Your task to perform on an android device: Search for seafood restaurants on Google Maps Image 0: 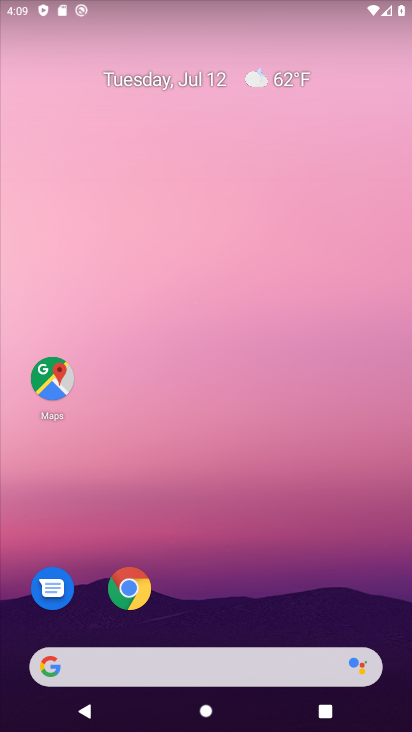
Step 0: drag from (202, 626) to (318, 65)
Your task to perform on an android device: Search for seafood restaurants on Google Maps Image 1: 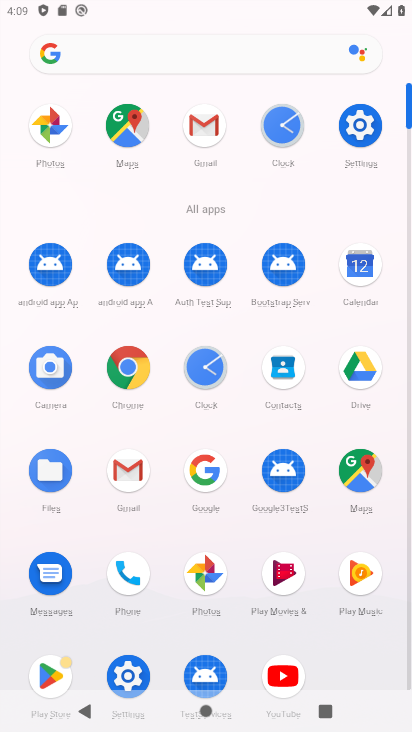
Step 1: click (337, 462)
Your task to perform on an android device: Search for seafood restaurants on Google Maps Image 2: 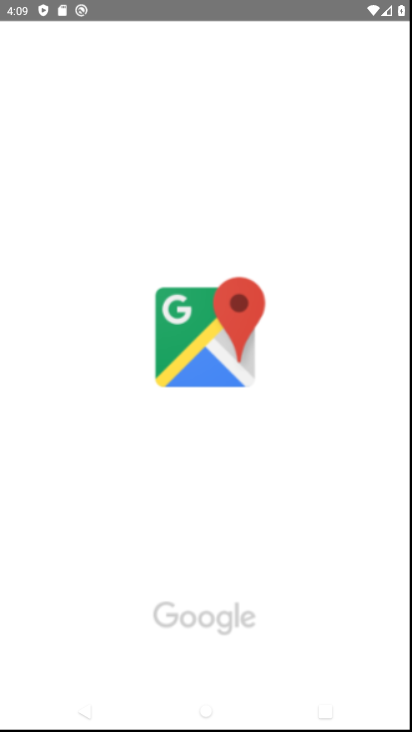
Step 2: task complete